Your task to perform on an android device: turn notification dots on Image 0: 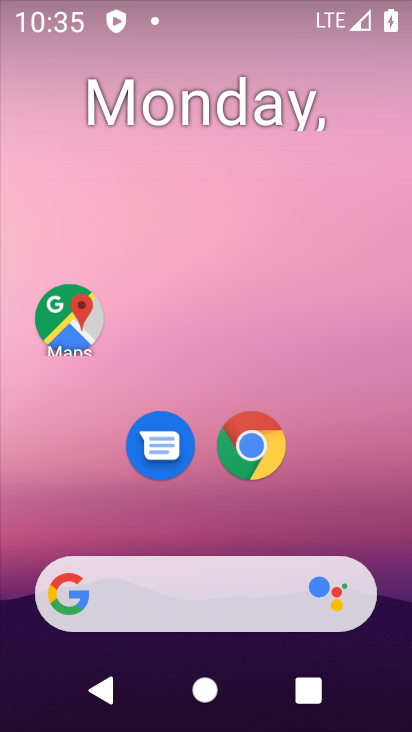
Step 0: drag from (208, 543) to (250, 350)
Your task to perform on an android device: turn notification dots on Image 1: 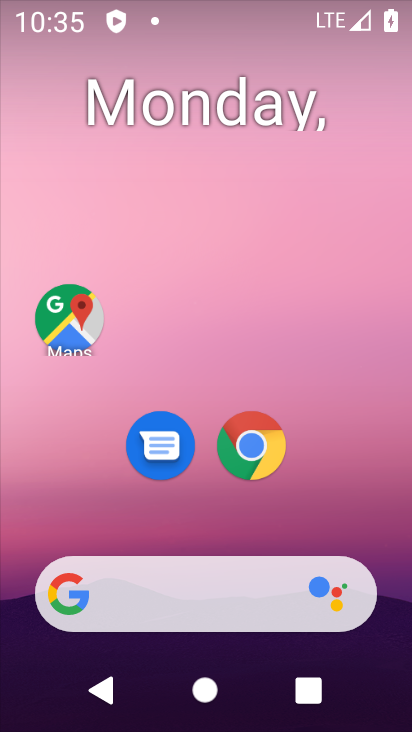
Step 1: drag from (283, 522) to (281, 180)
Your task to perform on an android device: turn notification dots on Image 2: 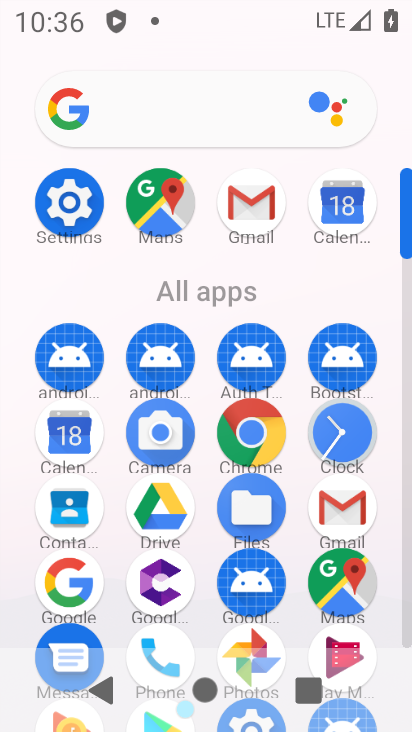
Step 2: click (67, 187)
Your task to perform on an android device: turn notification dots on Image 3: 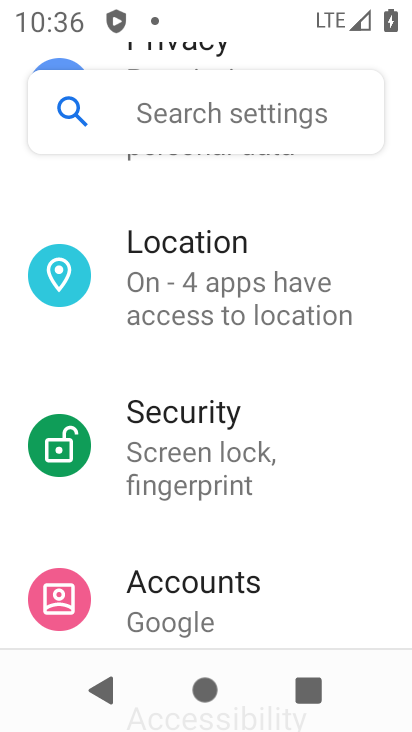
Step 3: drag from (223, 221) to (245, 695)
Your task to perform on an android device: turn notification dots on Image 4: 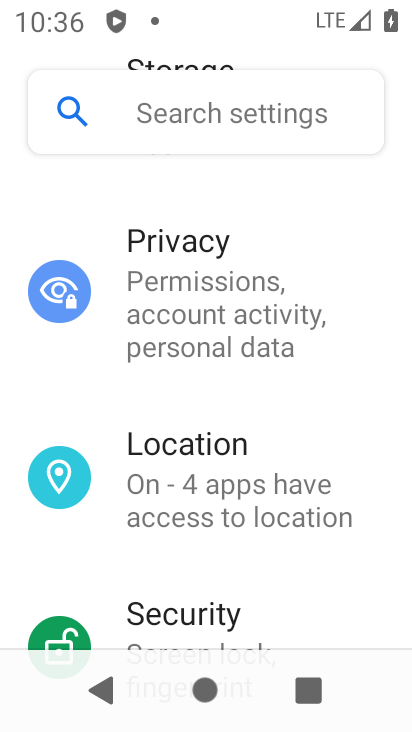
Step 4: drag from (270, 200) to (277, 606)
Your task to perform on an android device: turn notification dots on Image 5: 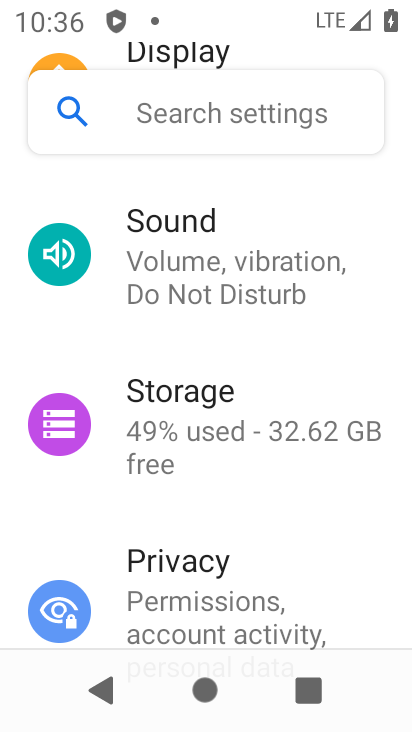
Step 5: drag from (283, 269) to (294, 682)
Your task to perform on an android device: turn notification dots on Image 6: 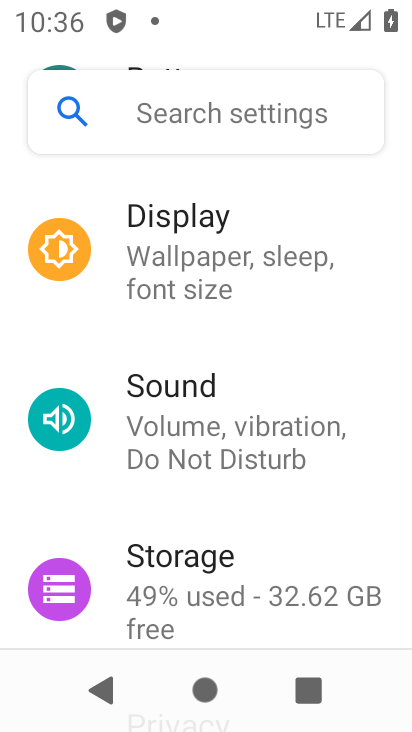
Step 6: drag from (287, 312) to (257, 731)
Your task to perform on an android device: turn notification dots on Image 7: 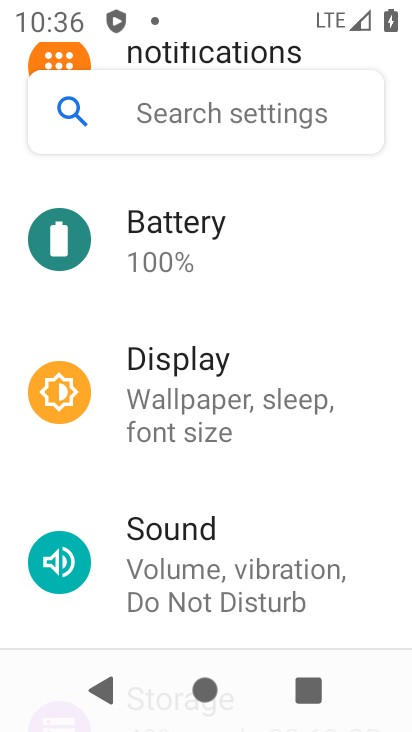
Step 7: drag from (226, 293) to (297, 622)
Your task to perform on an android device: turn notification dots on Image 8: 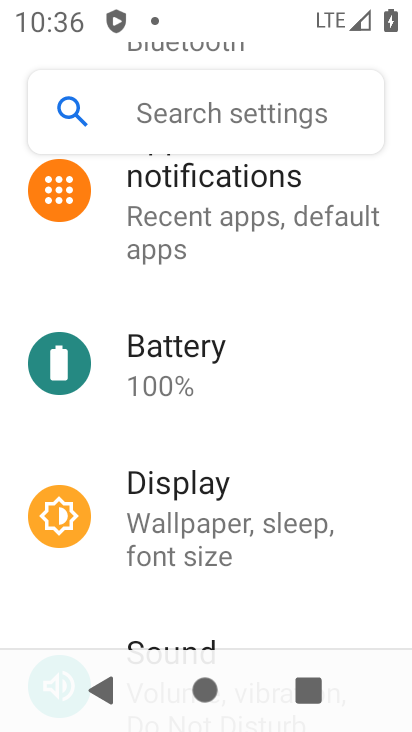
Step 8: click (239, 199)
Your task to perform on an android device: turn notification dots on Image 9: 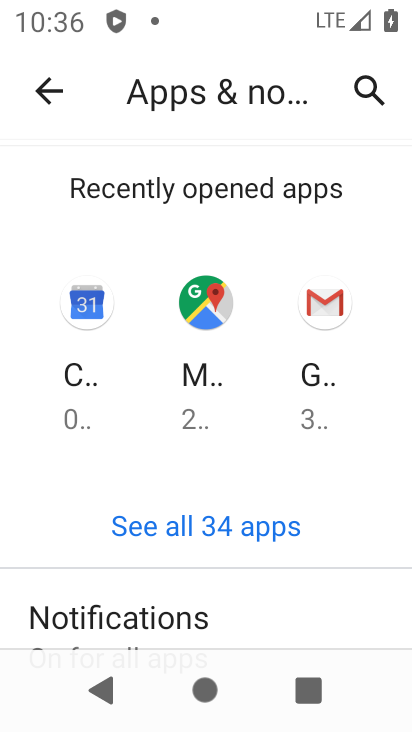
Step 9: drag from (232, 580) to (185, 337)
Your task to perform on an android device: turn notification dots on Image 10: 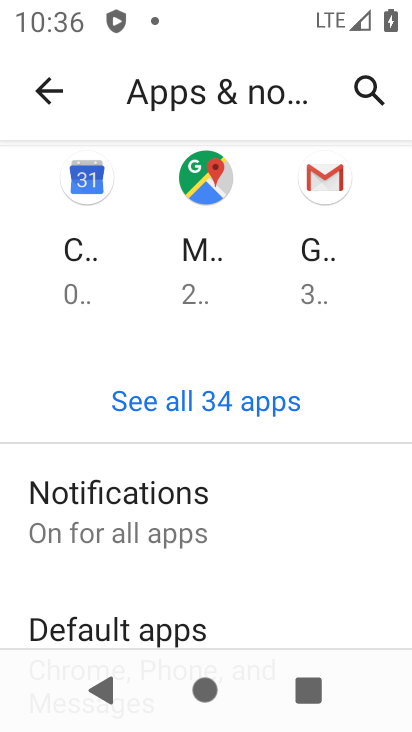
Step 10: click (173, 521)
Your task to perform on an android device: turn notification dots on Image 11: 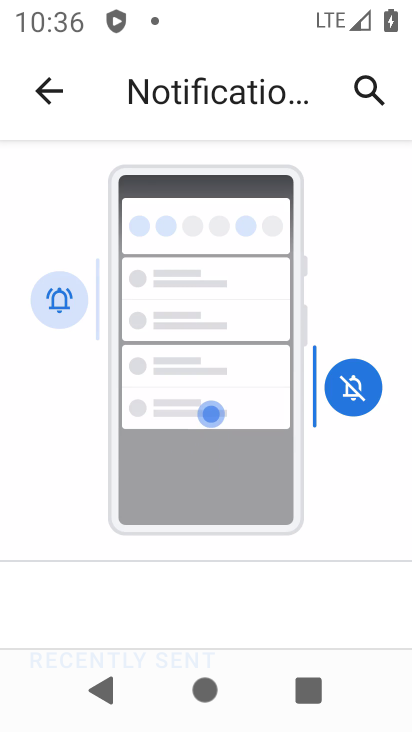
Step 11: drag from (259, 573) to (300, 228)
Your task to perform on an android device: turn notification dots on Image 12: 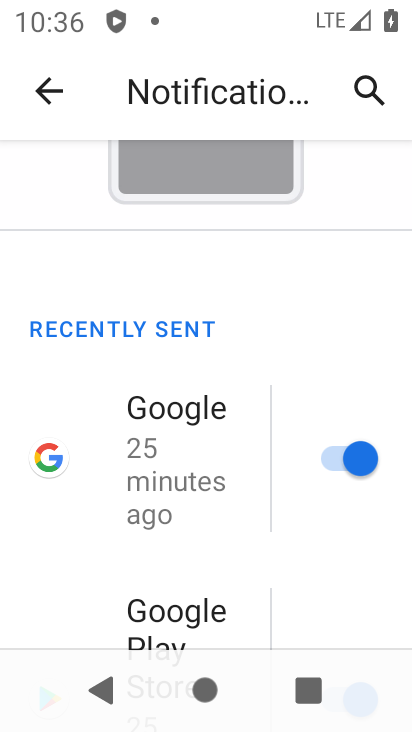
Step 12: drag from (316, 627) to (273, 374)
Your task to perform on an android device: turn notification dots on Image 13: 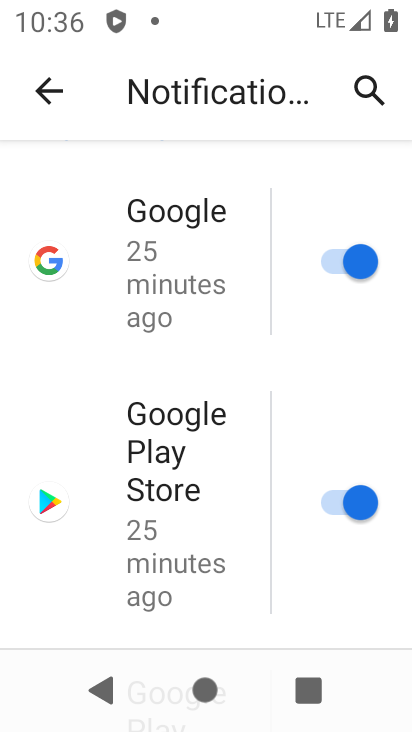
Step 13: click (313, 466)
Your task to perform on an android device: turn notification dots on Image 14: 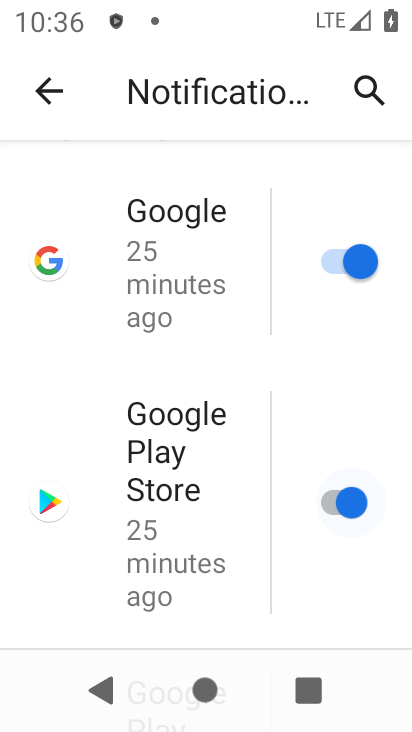
Step 14: drag from (312, 464) to (312, 186)
Your task to perform on an android device: turn notification dots on Image 15: 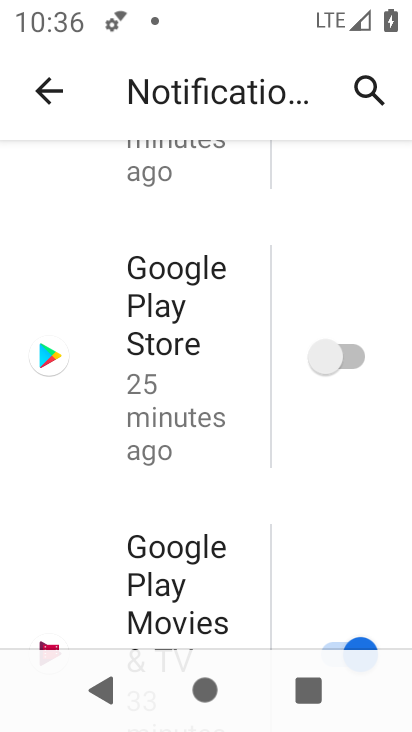
Step 15: drag from (284, 601) to (285, 294)
Your task to perform on an android device: turn notification dots on Image 16: 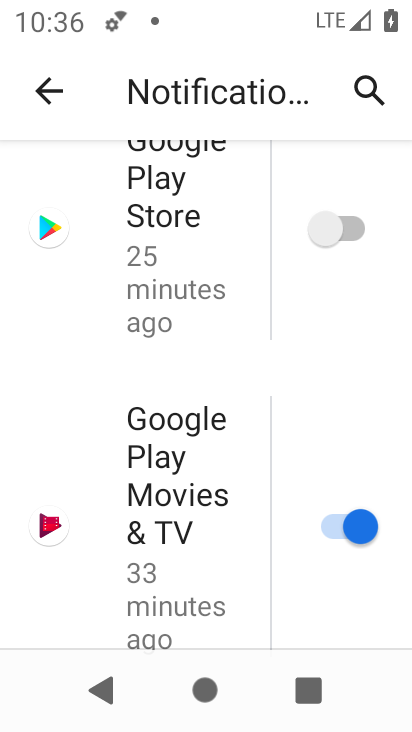
Step 16: drag from (238, 468) to (243, 319)
Your task to perform on an android device: turn notification dots on Image 17: 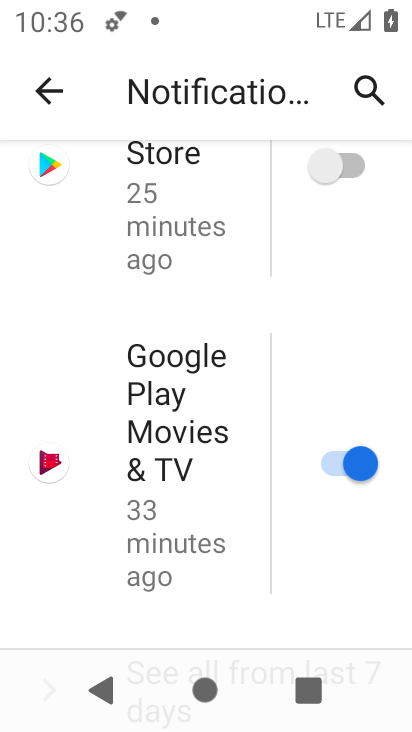
Step 17: drag from (287, 568) to (304, 280)
Your task to perform on an android device: turn notification dots on Image 18: 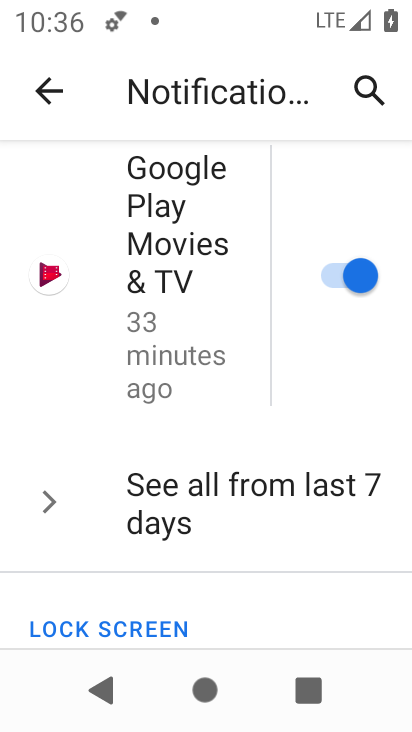
Step 18: drag from (328, 594) to (328, 345)
Your task to perform on an android device: turn notification dots on Image 19: 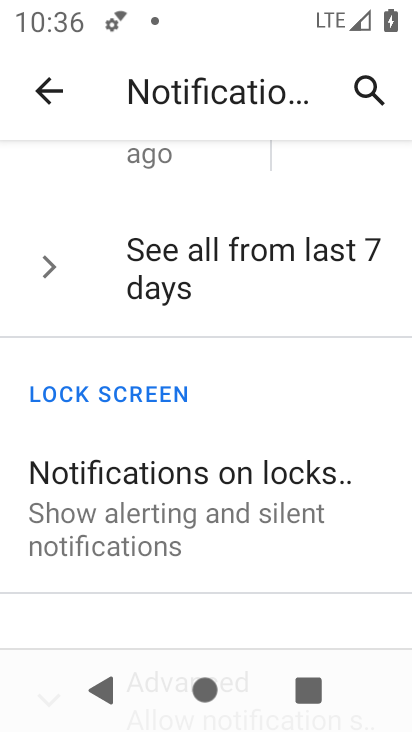
Step 19: drag from (265, 559) to (268, 256)
Your task to perform on an android device: turn notification dots on Image 20: 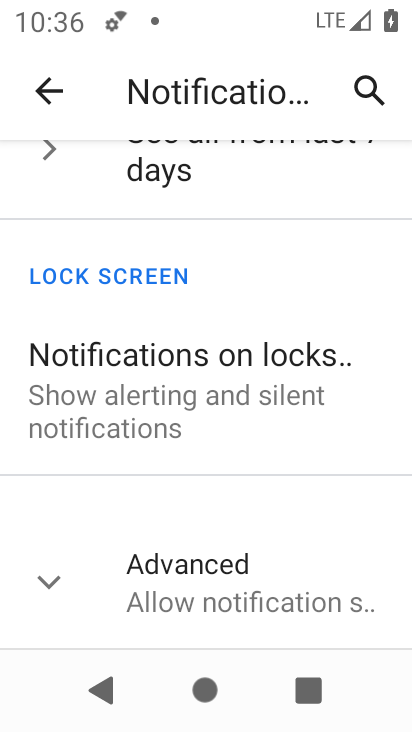
Step 20: click (366, 604)
Your task to perform on an android device: turn notification dots on Image 21: 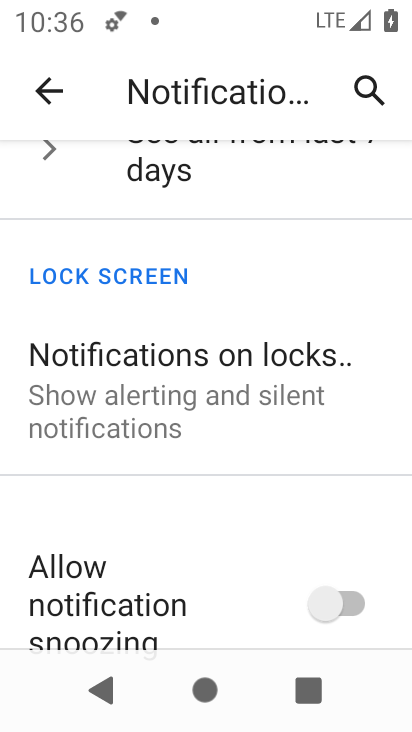
Step 21: task complete